Your task to perform on an android device: turn off sleep mode Image 0: 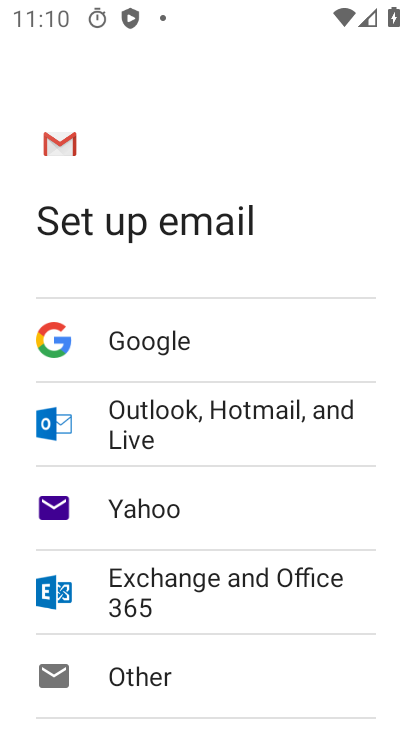
Step 0: press back button
Your task to perform on an android device: turn off sleep mode Image 1: 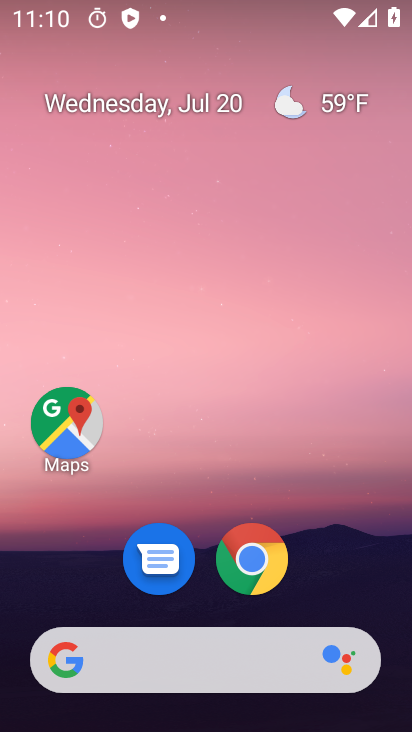
Step 1: drag from (118, 612) to (159, 0)
Your task to perform on an android device: turn off sleep mode Image 2: 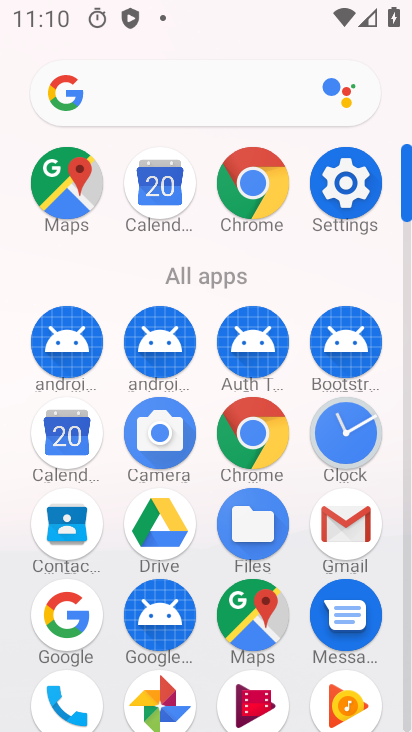
Step 2: click (344, 174)
Your task to perform on an android device: turn off sleep mode Image 3: 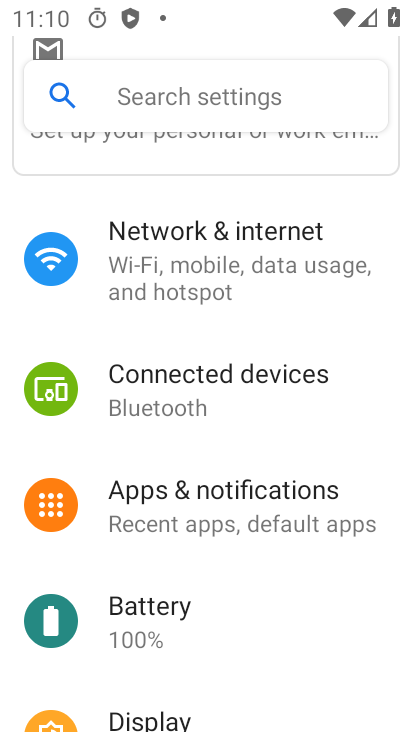
Step 3: click (176, 81)
Your task to perform on an android device: turn off sleep mode Image 4: 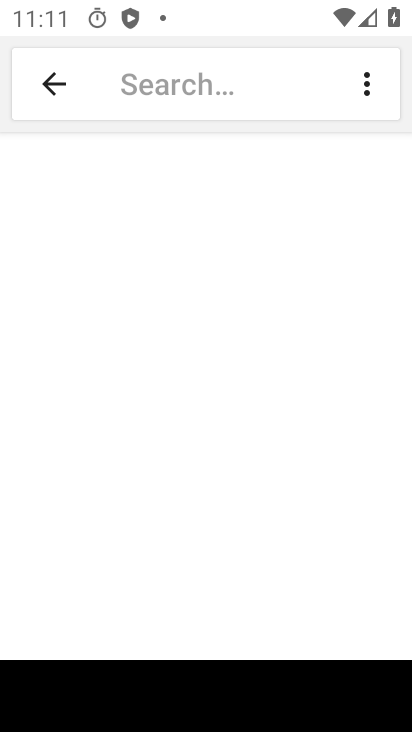
Step 4: type "sleep mode"
Your task to perform on an android device: turn off sleep mode Image 5: 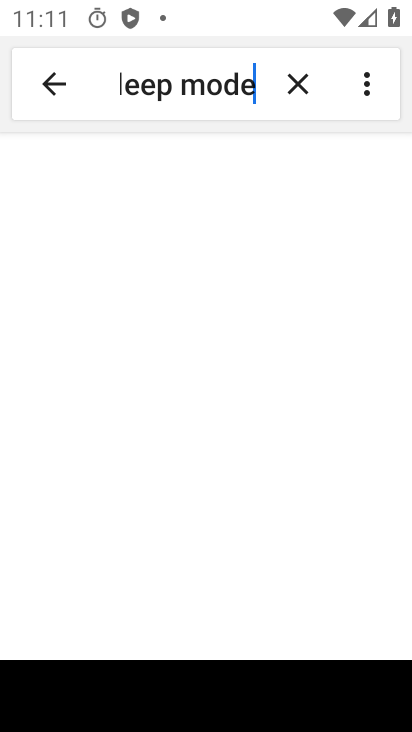
Step 5: task complete